Your task to perform on an android device: open app "TextNow: Call + Text Unlimited" (install if not already installed) Image 0: 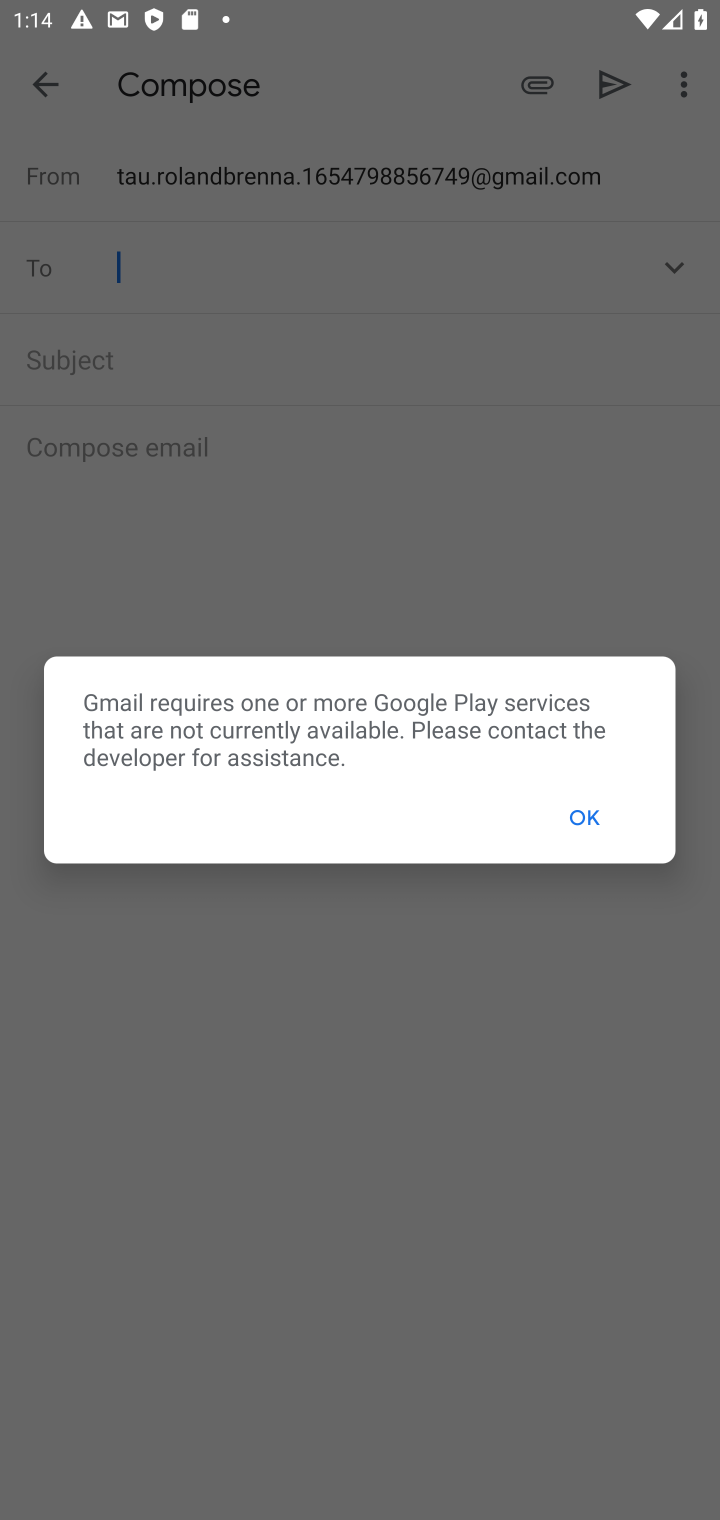
Step 0: press home button
Your task to perform on an android device: open app "TextNow: Call + Text Unlimited" (install if not already installed) Image 1: 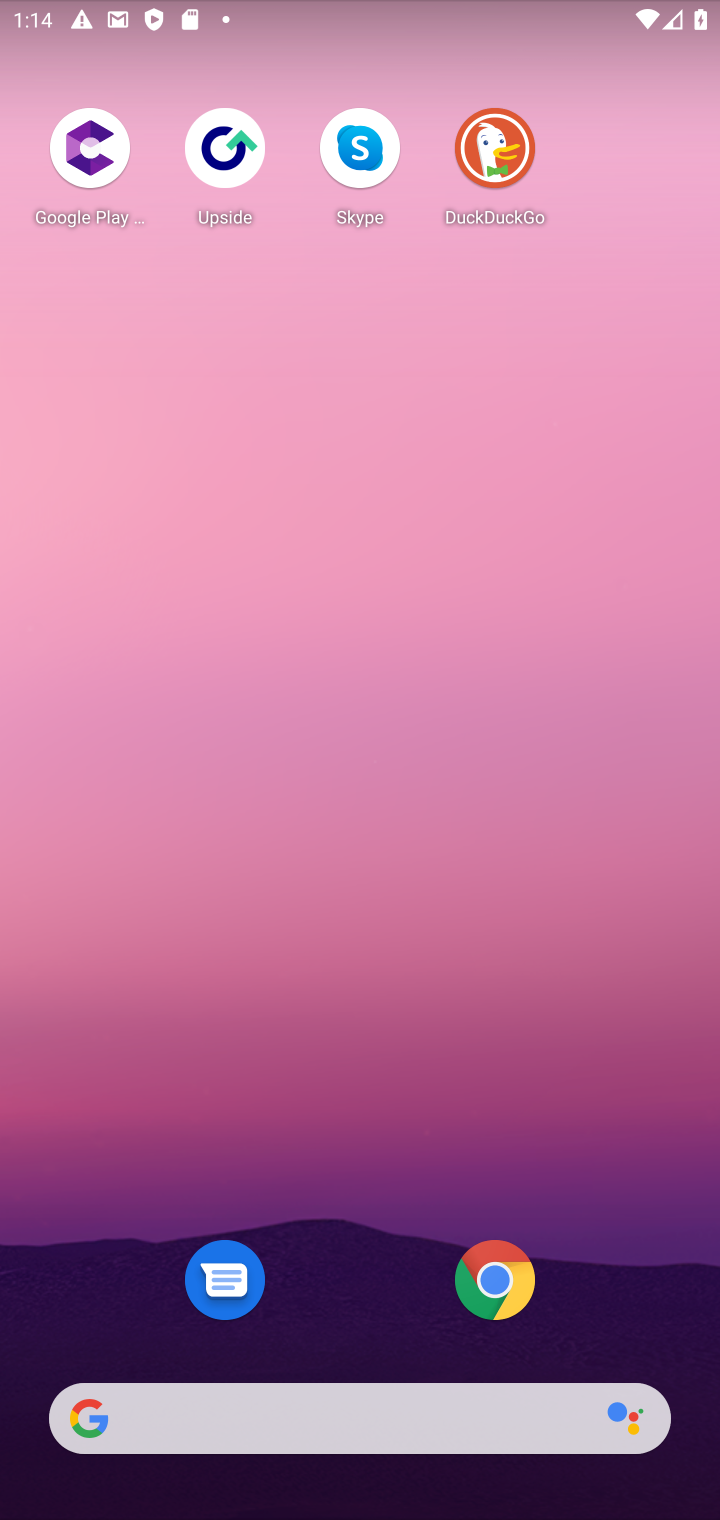
Step 1: drag from (402, 739) to (456, 178)
Your task to perform on an android device: open app "TextNow: Call + Text Unlimited" (install if not already installed) Image 2: 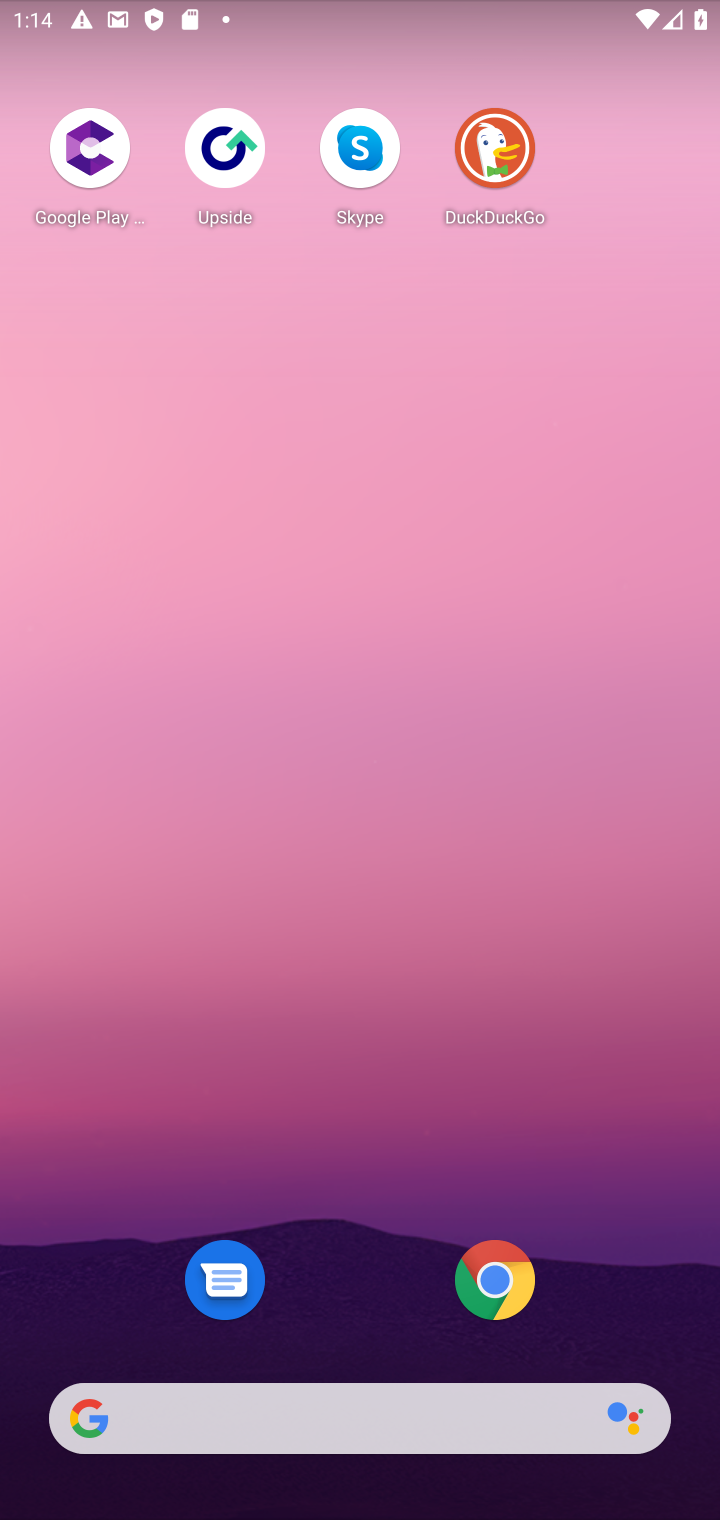
Step 2: drag from (406, 1156) to (465, 61)
Your task to perform on an android device: open app "TextNow: Call + Text Unlimited" (install if not already installed) Image 3: 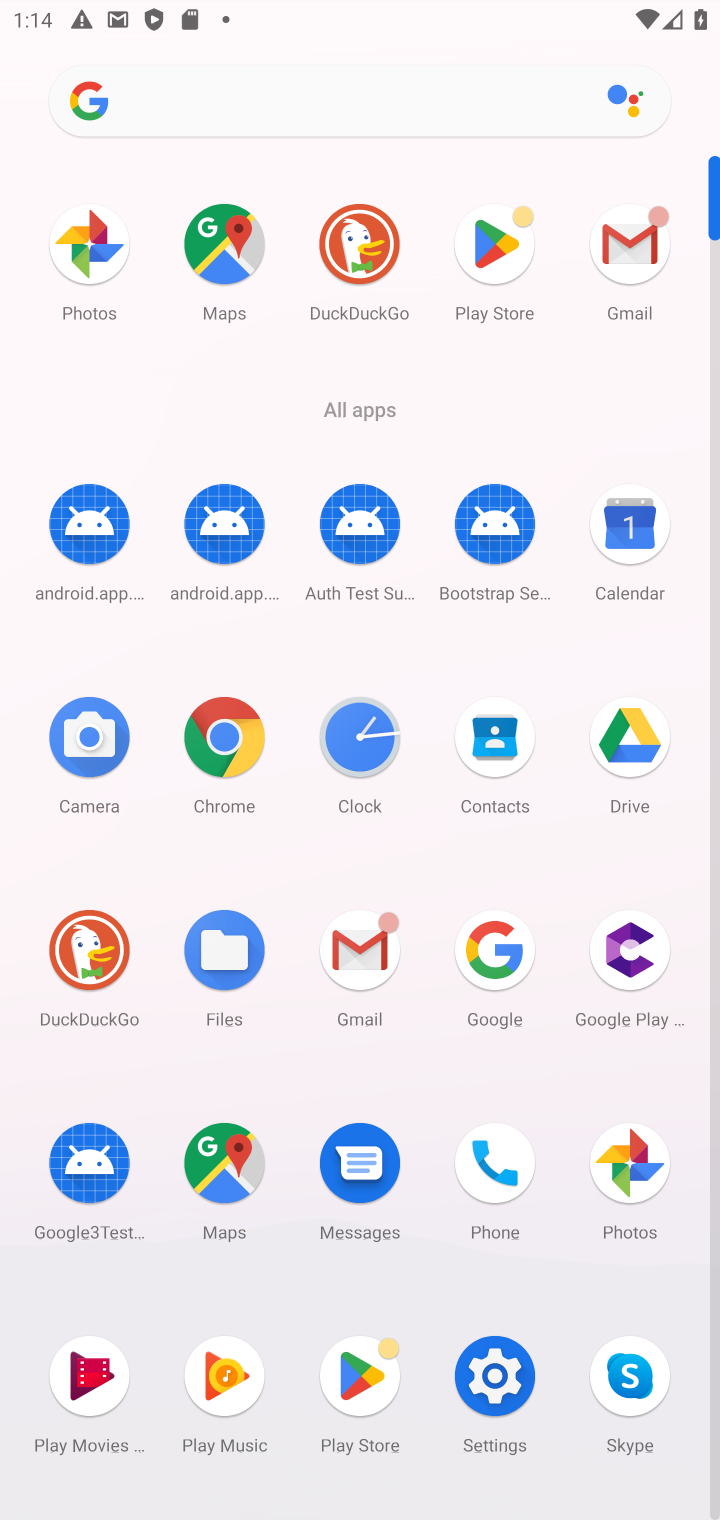
Step 3: click (500, 229)
Your task to perform on an android device: open app "TextNow: Call + Text Unlimited" (install if not already installed) Image 4: 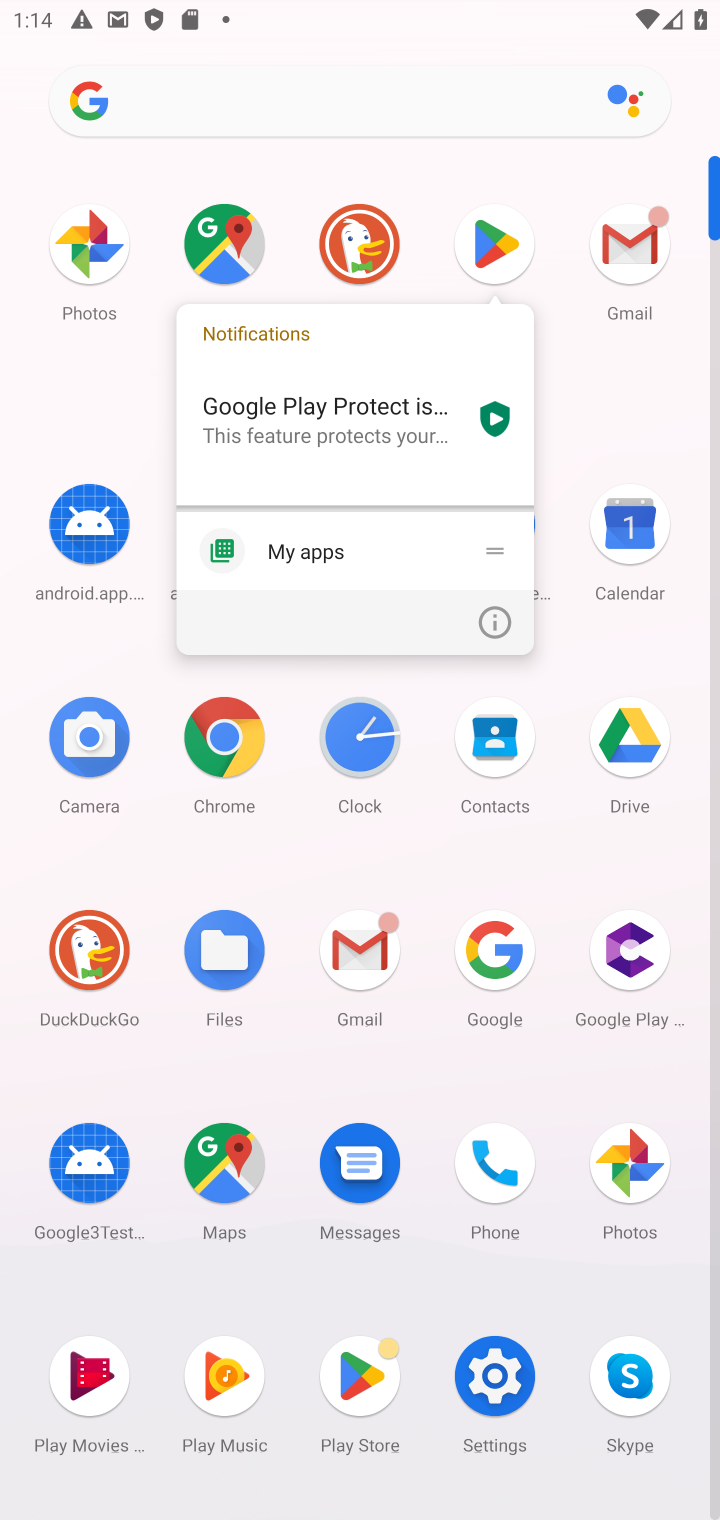
Step 4: click (498, 249)
Your task to perform on an android device: open app "TextNow: Call + Text Unlimited" (install if not already installed) Image 5: 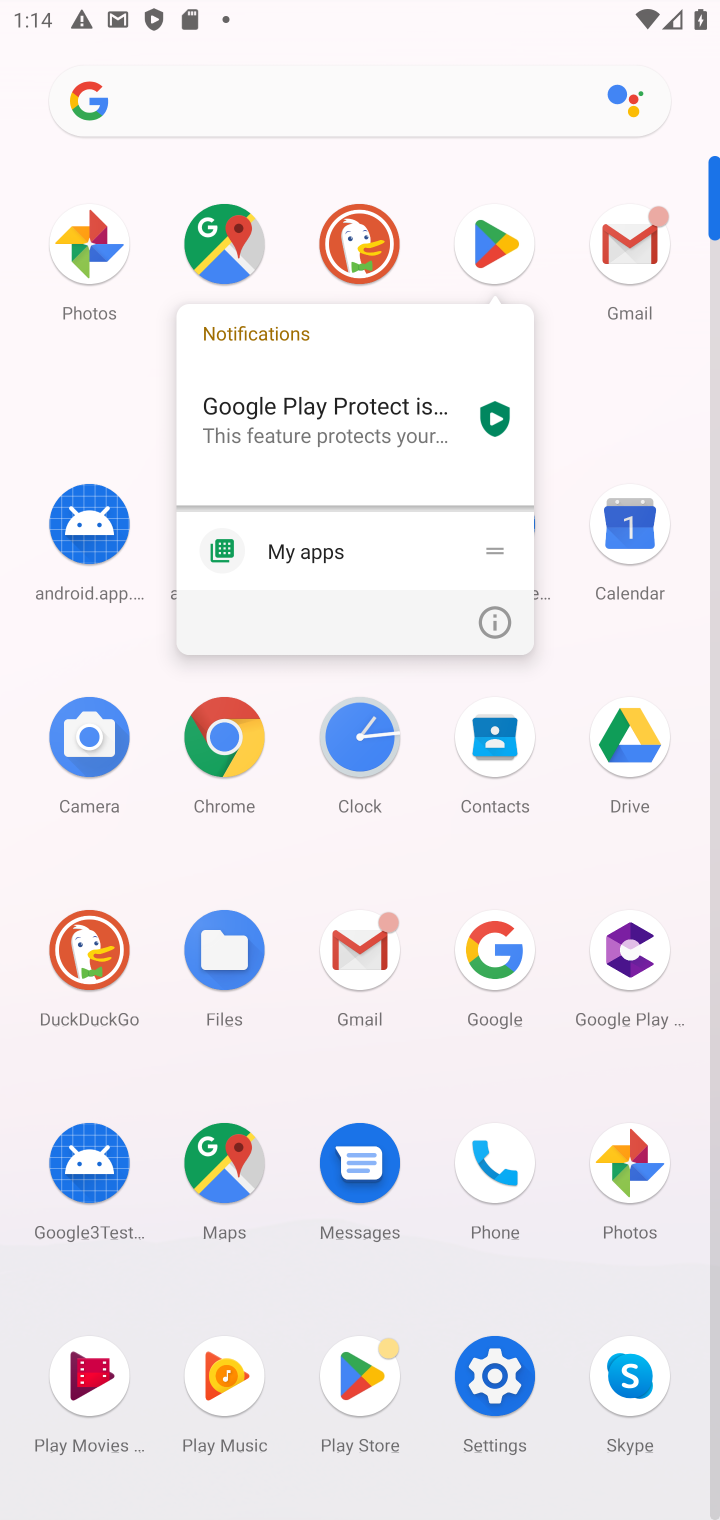
Step 5: click (497, 241)
Your task to perform on an android device: open app "TextNow: Call + Text Unlimited" (install if not already installed) Image 6: 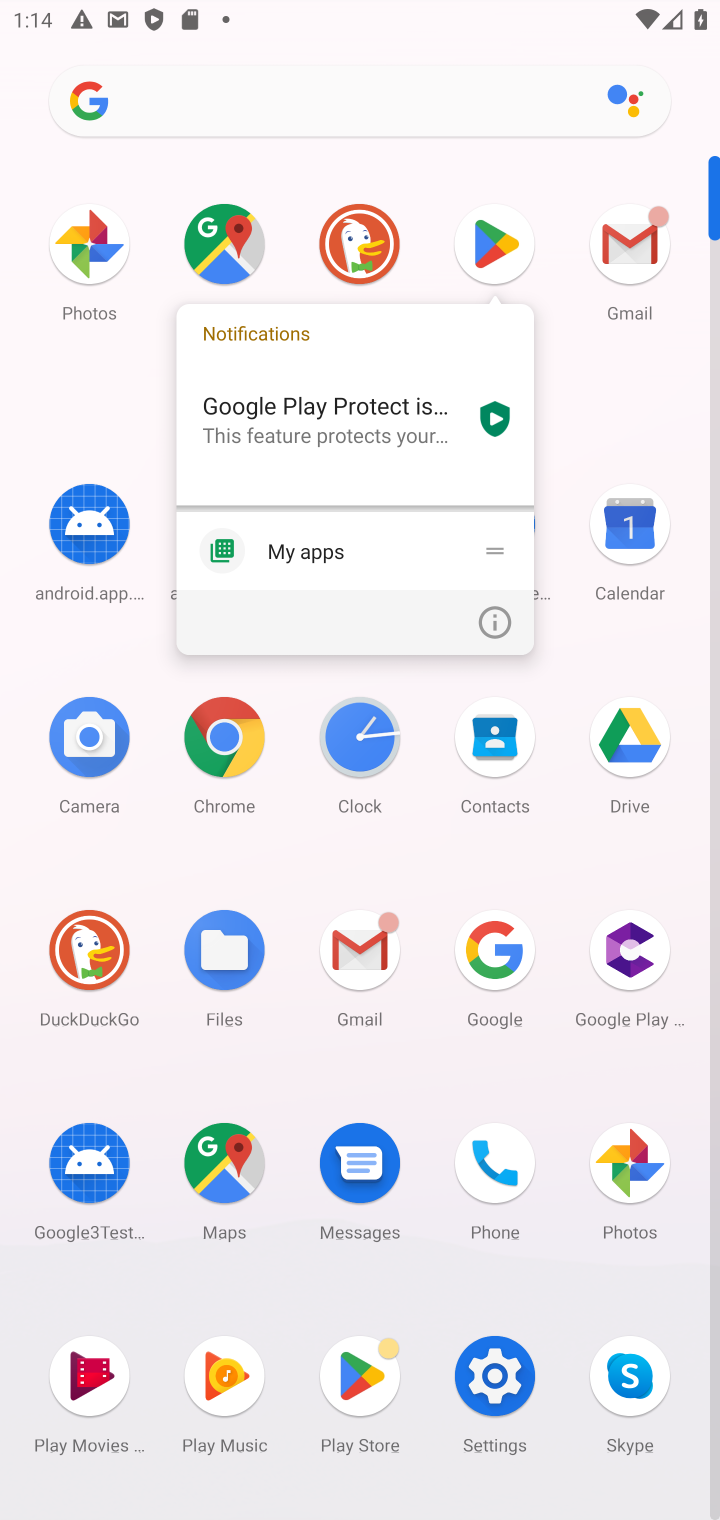
Step 6: click (491, 225)
Your task to perform on an android device: open app "TextNow: Call + Text Unlimited" (install if not already installed) Image 7: 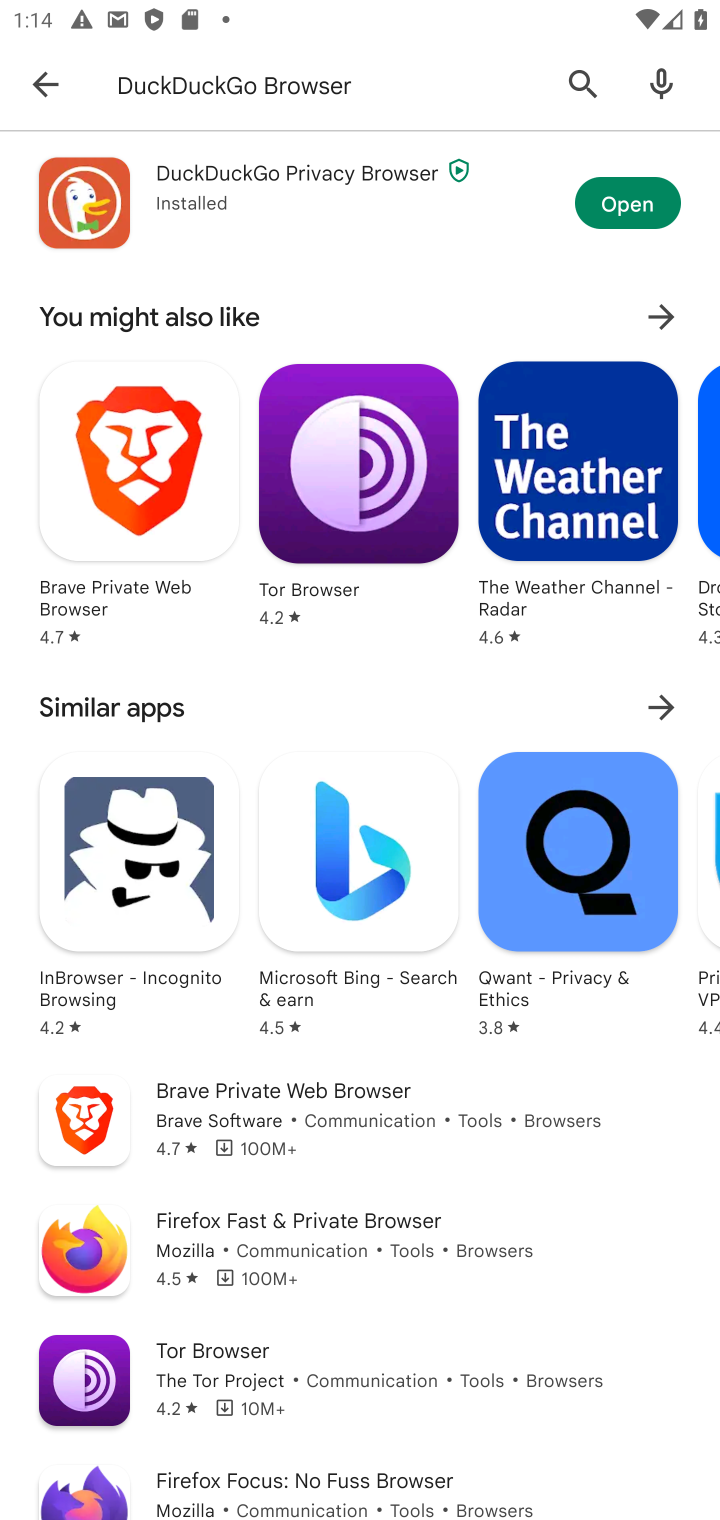
Step 7: click (450, 85)
Your task to perform on an android device: open app "TextNow: Call + Text Unlimited" (install if not already installed) Image 8: 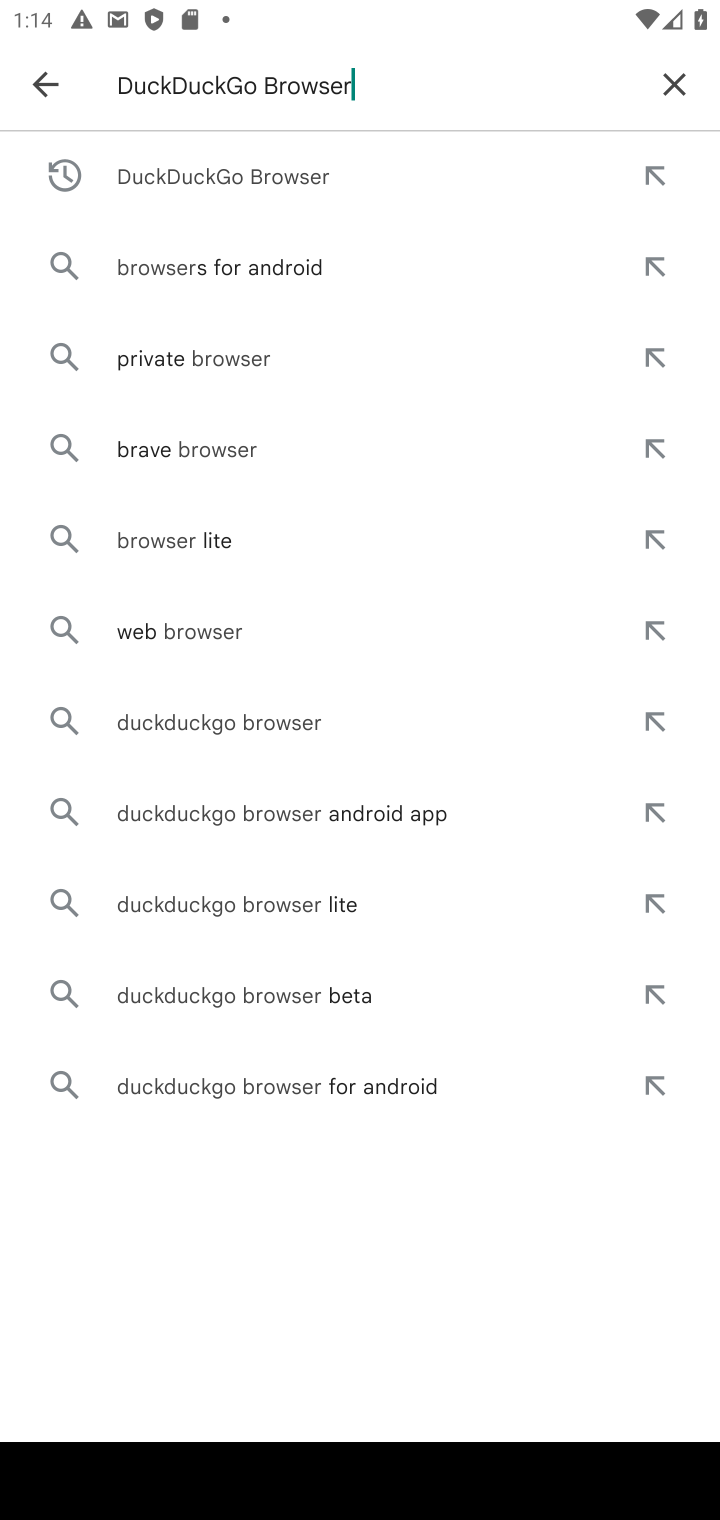
Step 8: click (669, 83)
Your task to perform on an android device: open app "TextNow: Call + Text Unlimited" (install if not already installed) Image 9: 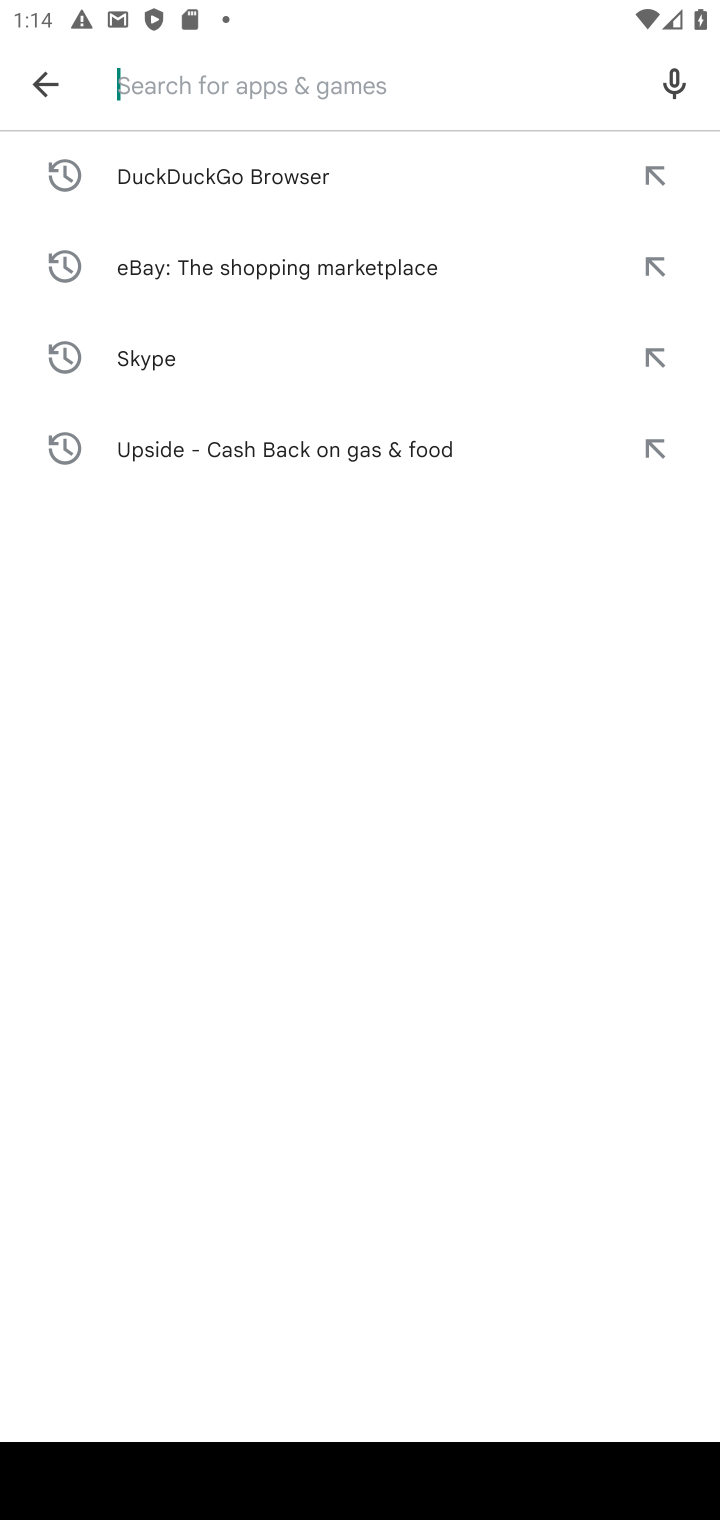
Step 9: type ""
Your task to perform on an android device: open app "TextNow: Call + Text Unlimited" (install if not already installed) Image 10: 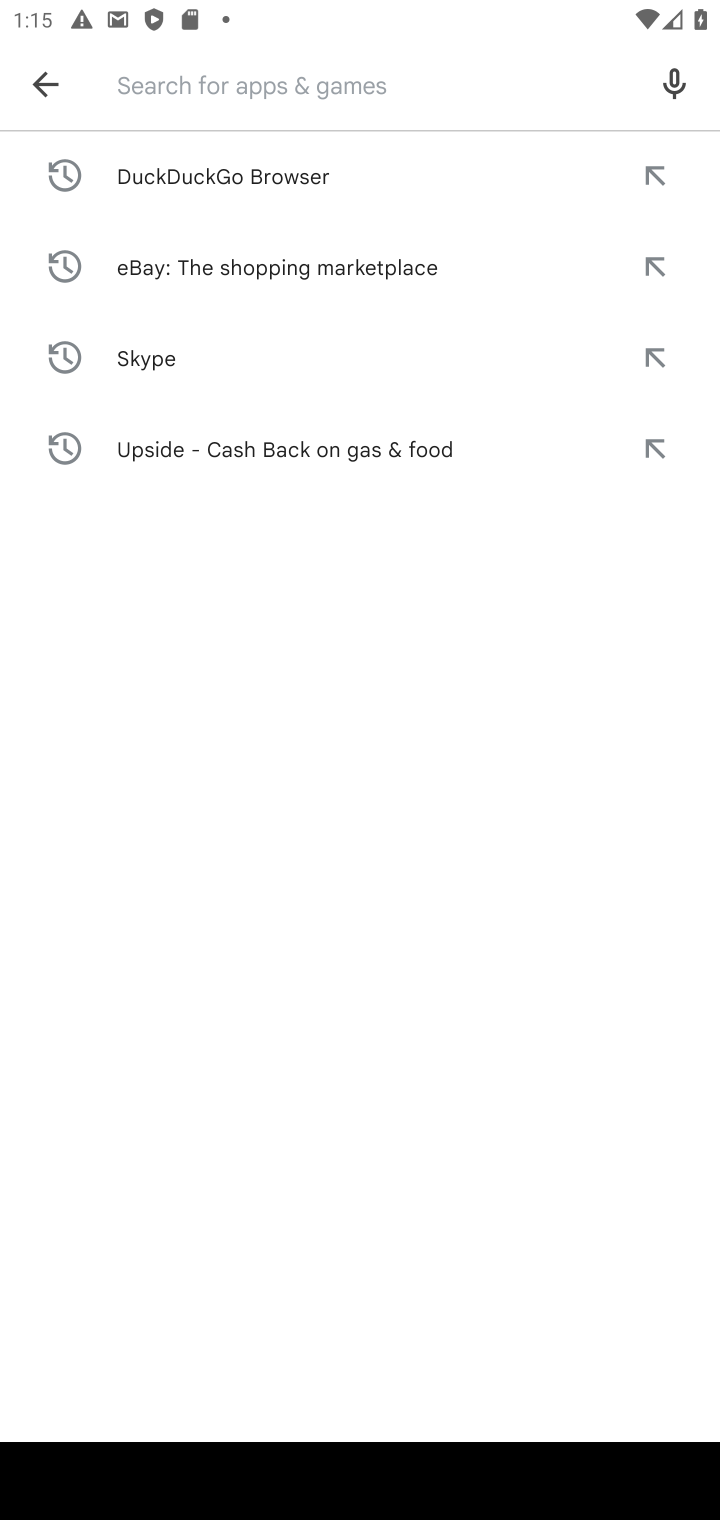
Step 10: type "TextNow: Call + Text Unlimited"
Your task to perform on an android device: open app "TextNow: Call + Text Unlimited" (install if not already installed) Image 11: 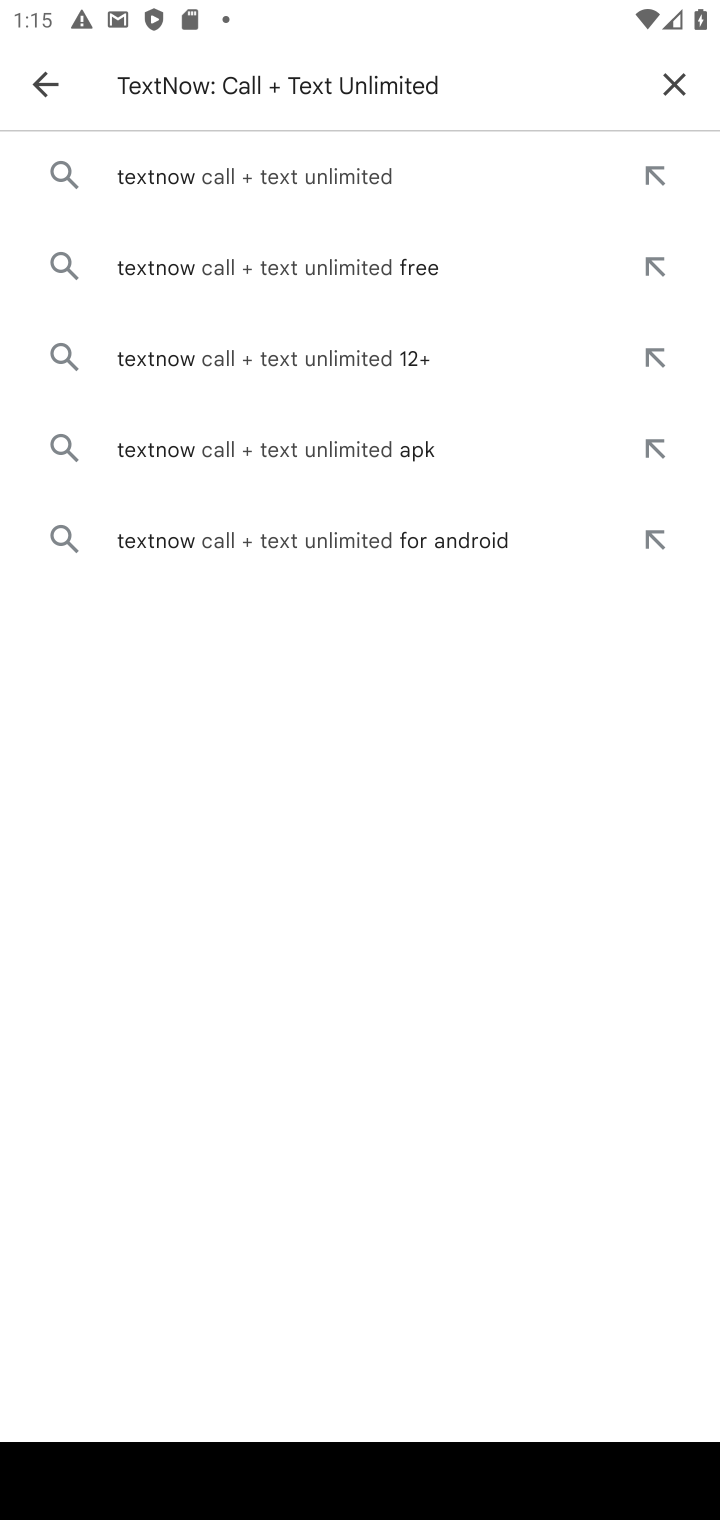
Step 11: press enter
Your task to perform on an android device: open app "TextNow: Call + Text Unlimited" (install if not already installed) Image 12: 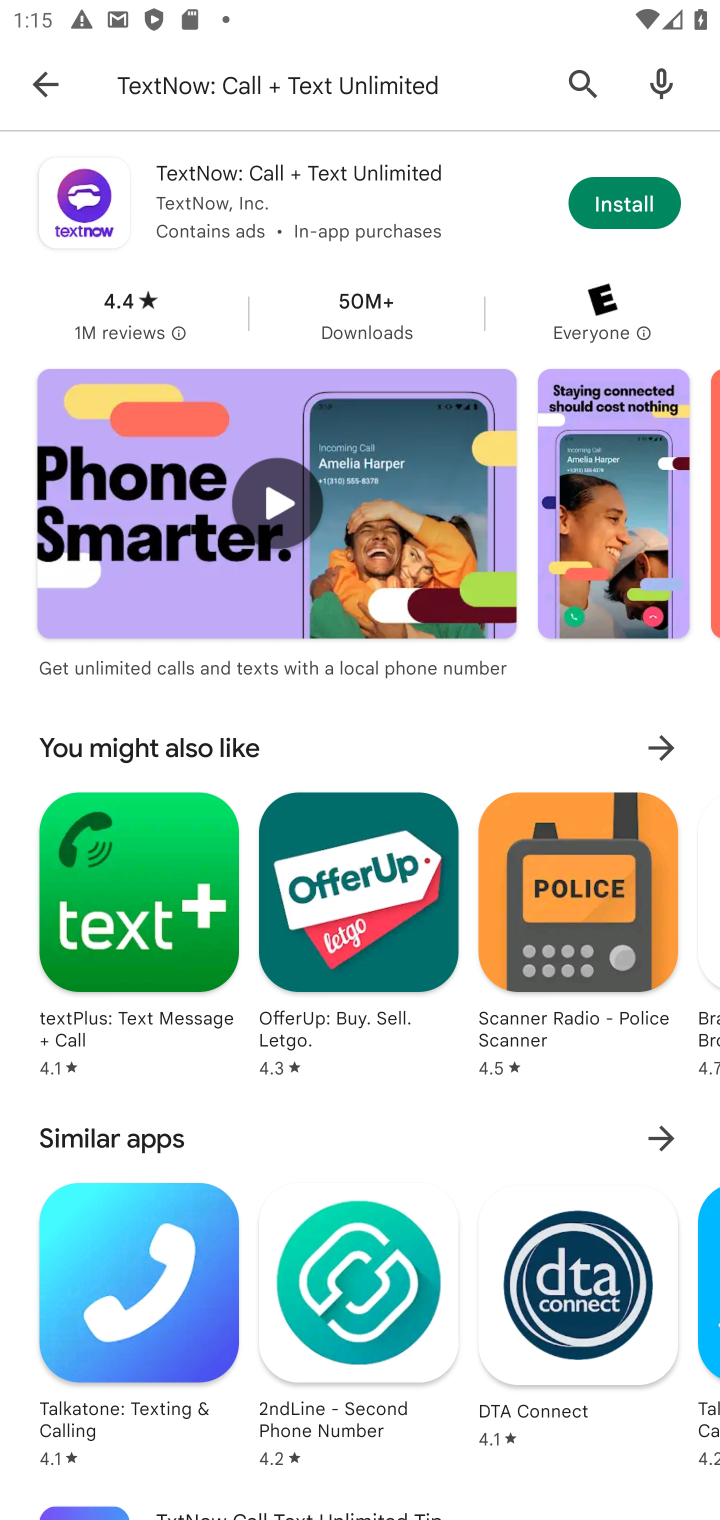
Step 12: click (636, 198)
Your task to perform on an android device: open app "TextNow: Call + Text Unlimited" (install if not already installed) Image 13: 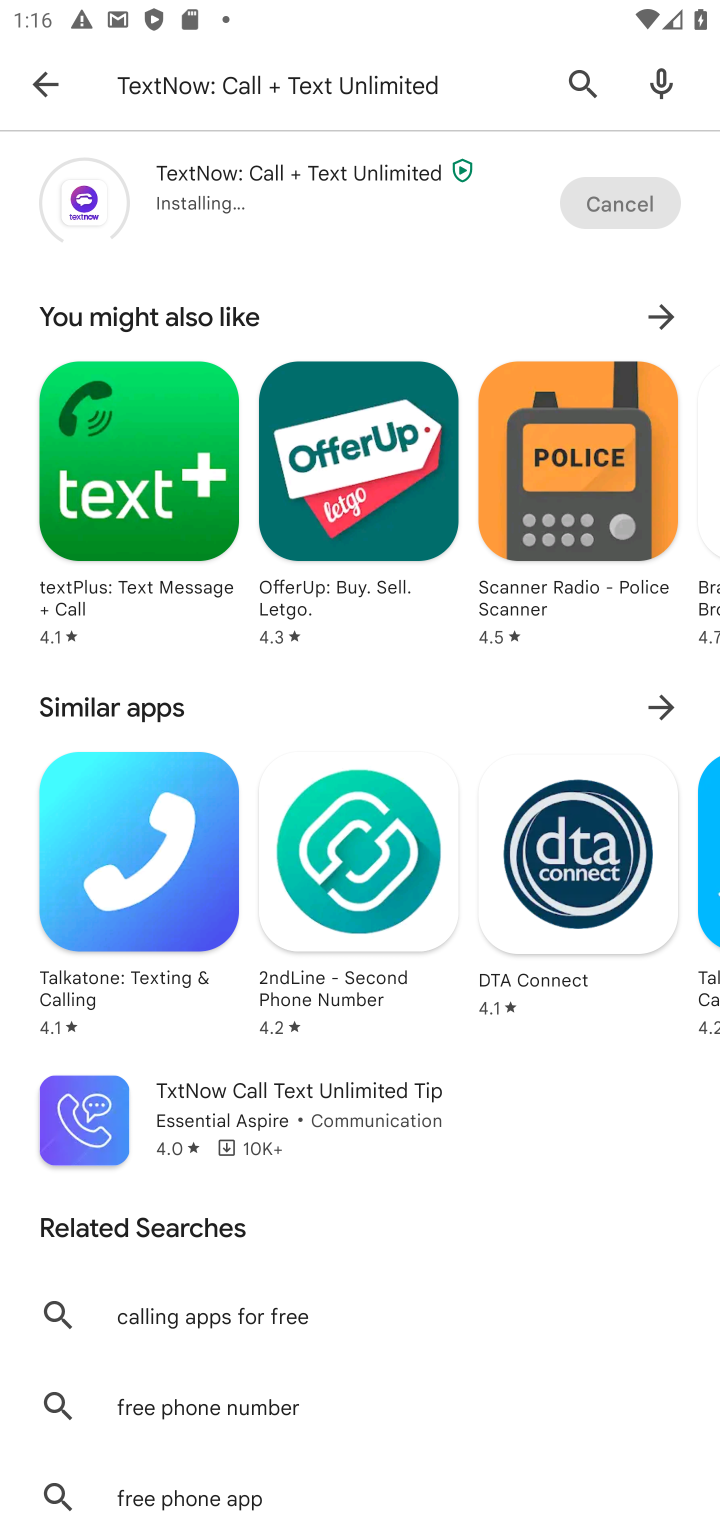
Step 13: click (703, 1284)
Your task to perform on an android device: open app "TextNow: Call + Text Unlimited" (install if not already installed) Image 14: 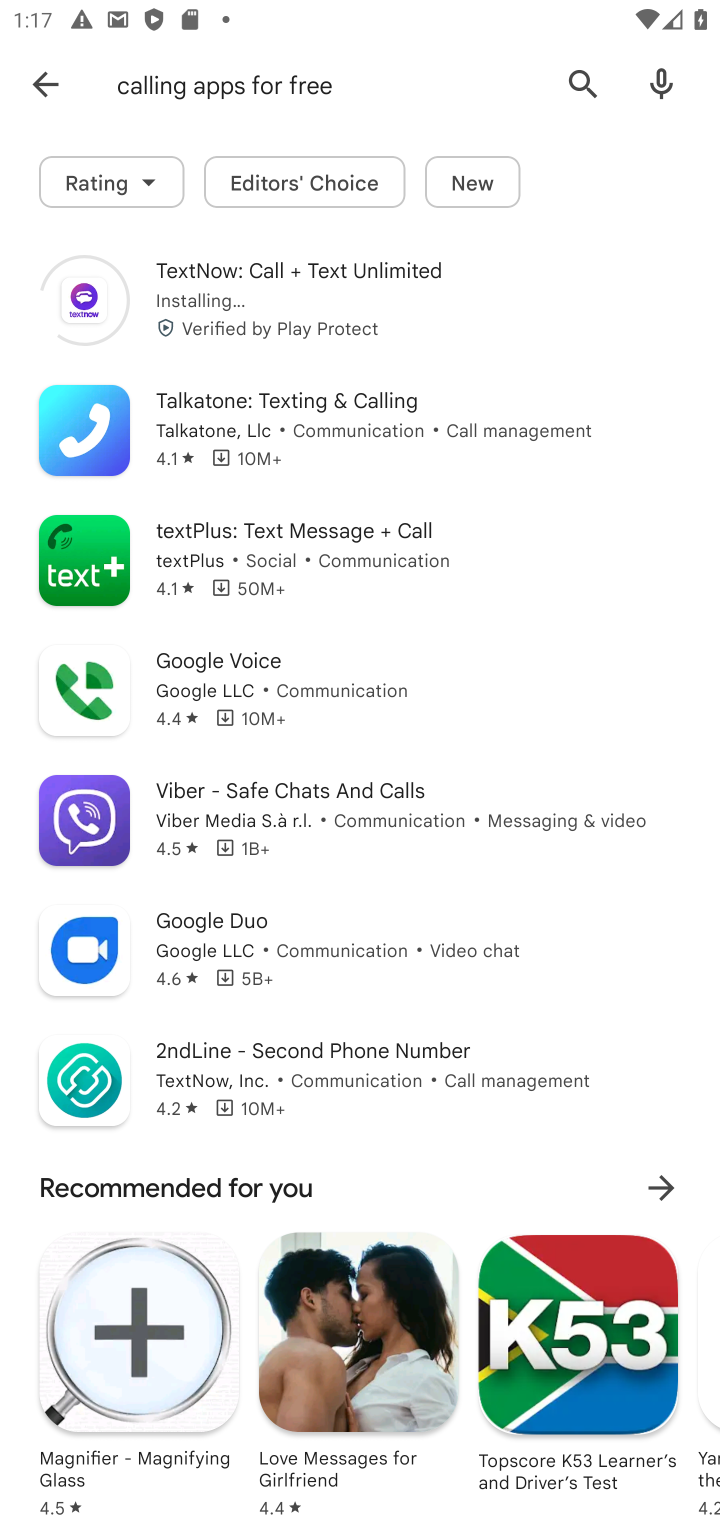
Step 14: click (211, 286)
Your task to perform on an android device: open app "TextNow: Call + Text Unlimited" (install if not already installed) Image 15: 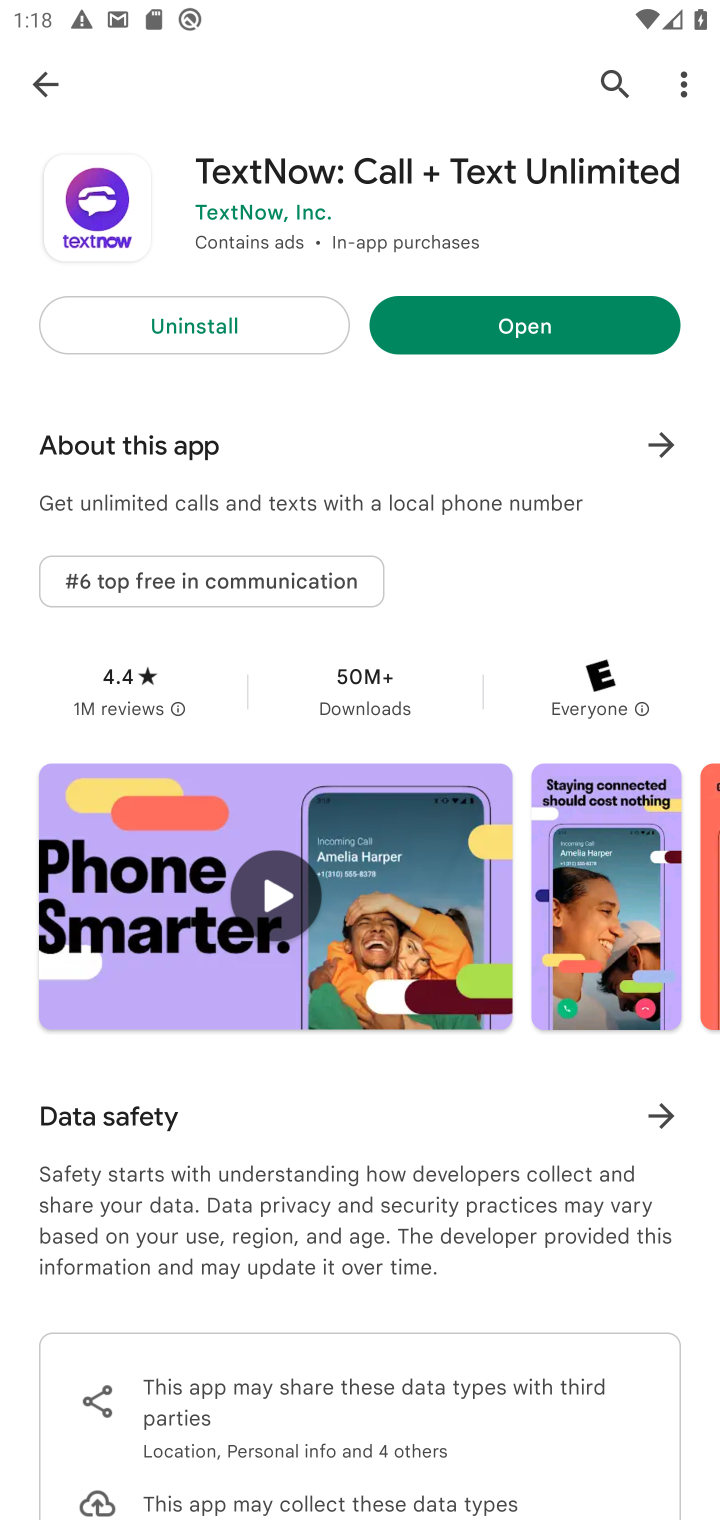
Step 15: click (454, 334)
Your task to perform on an android device: open app "TextNow: Call + Text Unlimited" (install if not already installed) Image 16: 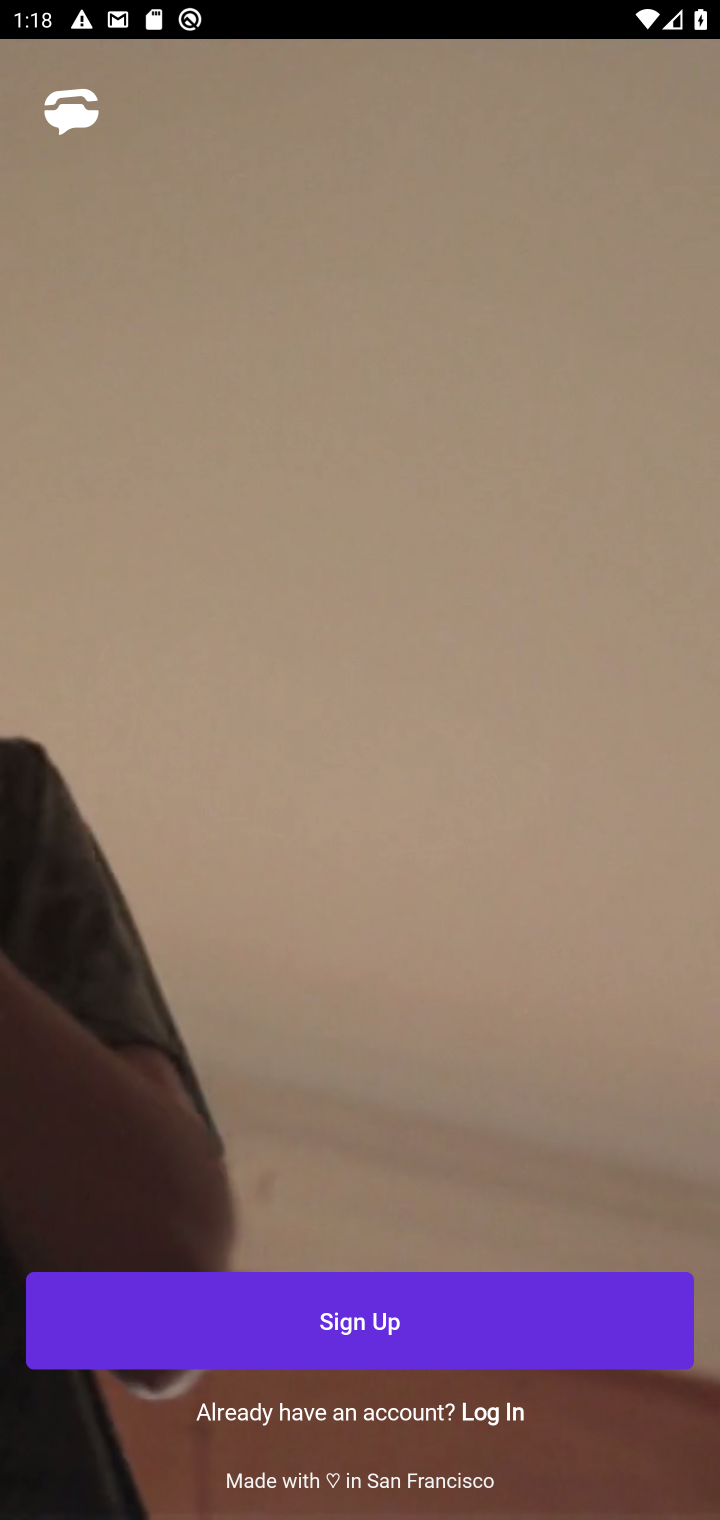
Step 16: task complete